Your task to perform on an android device: Open ESPN.com Image 0: 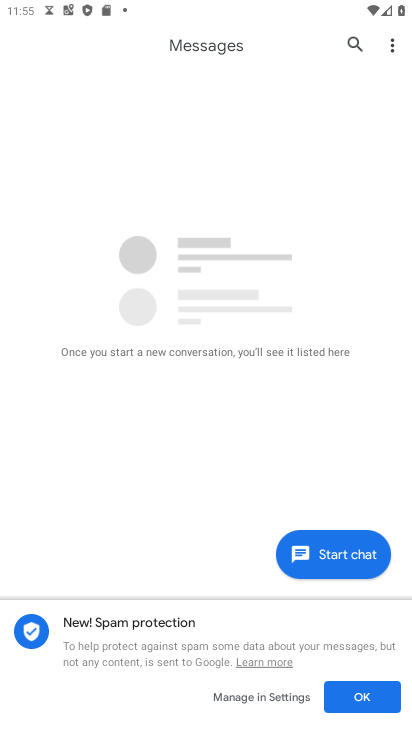
Step 0: press home button
Your task to perform on an android device: Open ESPN.com Image 1: 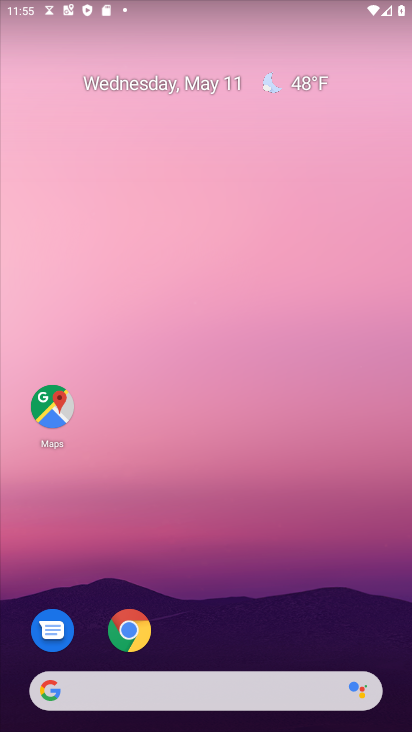
Step 1: click (127, 627)
Your task to perform on an android device: Open ESPN.com Image 2: 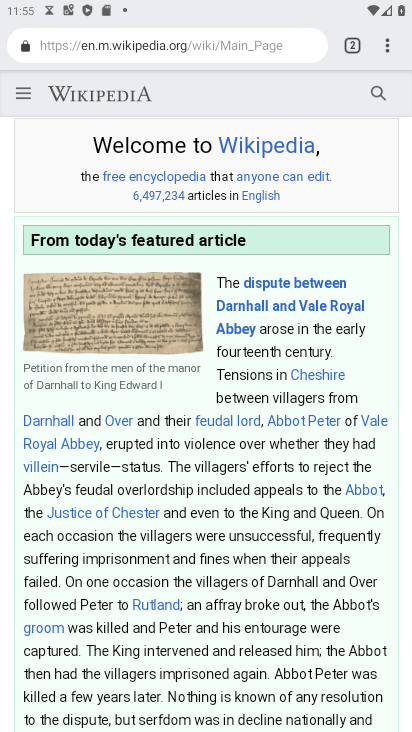
Step 2: click (387, 50)
Your task to perform on an android device: Open ESPN.com Image 3: 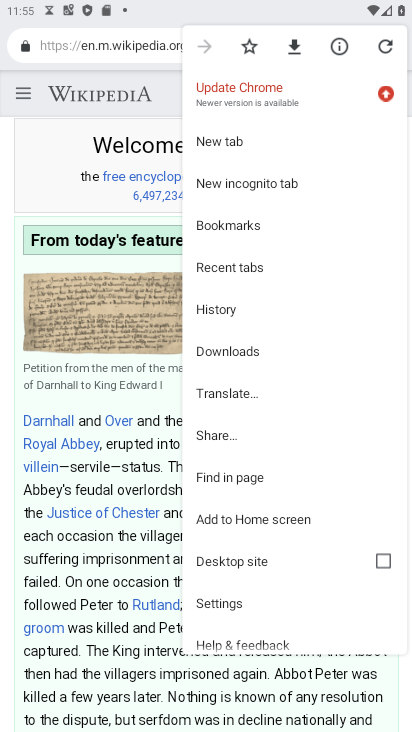
Step 3: click (232, 140)
Your task to perform on an android device: Open ESPN.com Image 4: 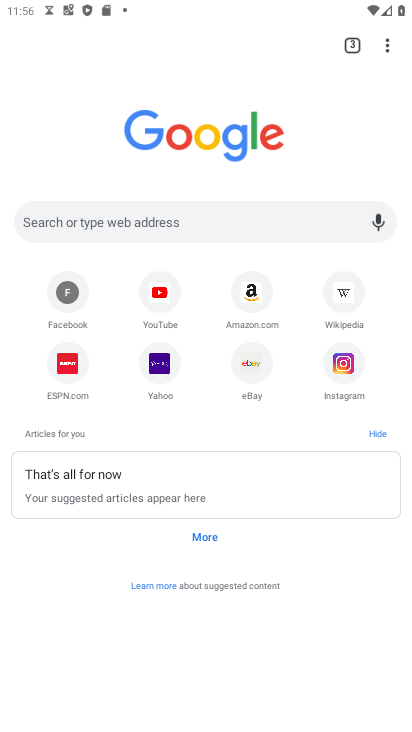
Step 4: click (69, 362)
Your task to perform on an android device: Open ESPN.com Image 5: 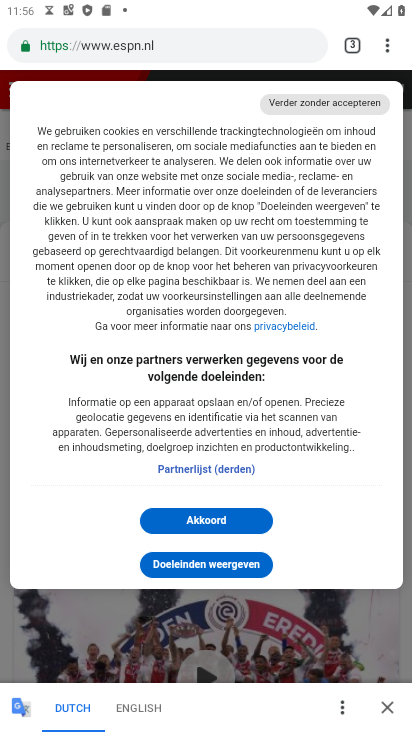
Step 5: task complete